Your task to perform on an android device: Open Maps and search for coffee Image 0: 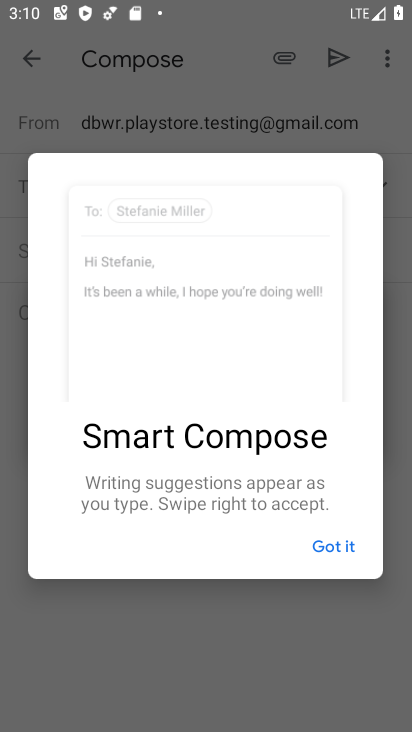
Step 0: press home button
Your task to perform on an android device: Open Maps and search for coffee Image 1: 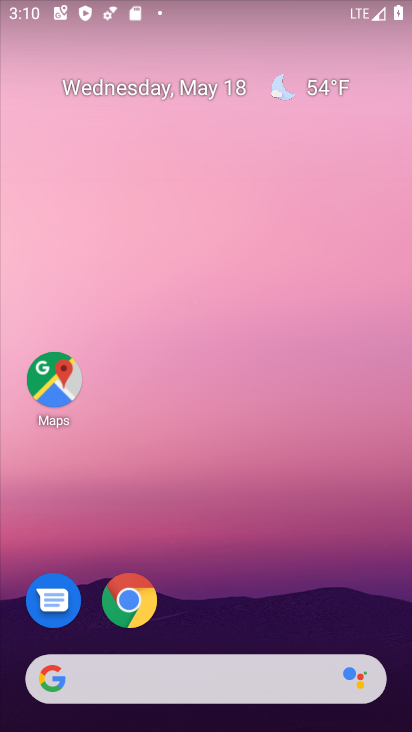
Step 1: click (58, 391)
Your task to perform on an android device: Open Maps and search for coffee Image 2: 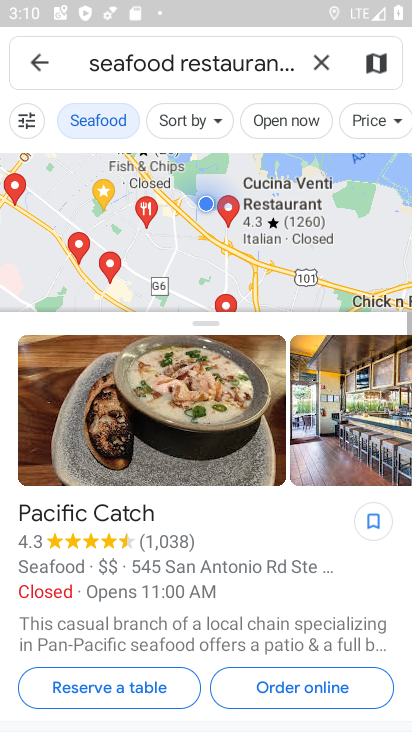
Step 2: click (322, 62)
Your task to perform on an android device: Open Maps and search for coffee Image 3: 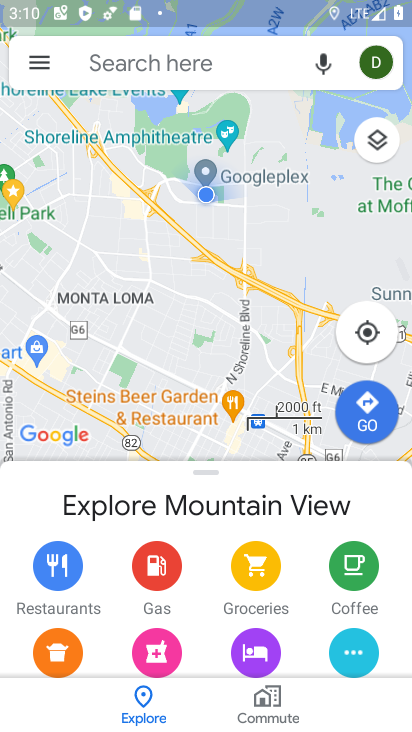
Step 3: click (210, 70)
Your task to perform on an android device: Open Maps and search for coffee Image 4: 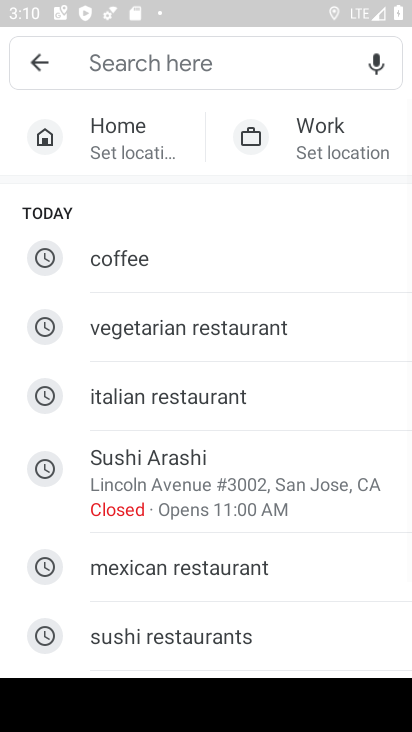
Step 4: click (117, 256)
Your task to perform on an android device: Open Maps and search for coffee Image 5: 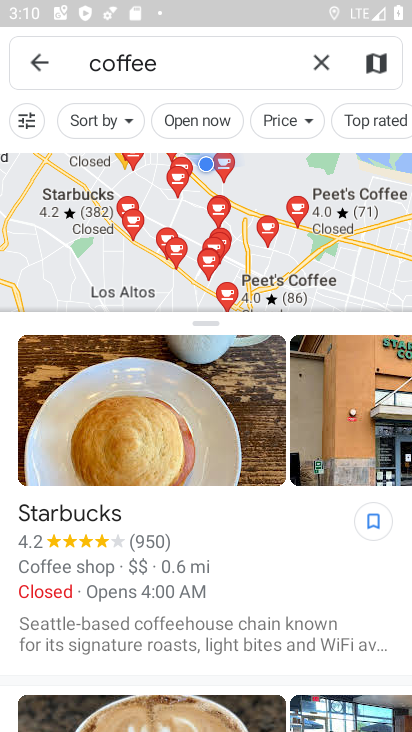
Step 5: task complete